Your task to perform on an android device: Open Android settings Image 0: 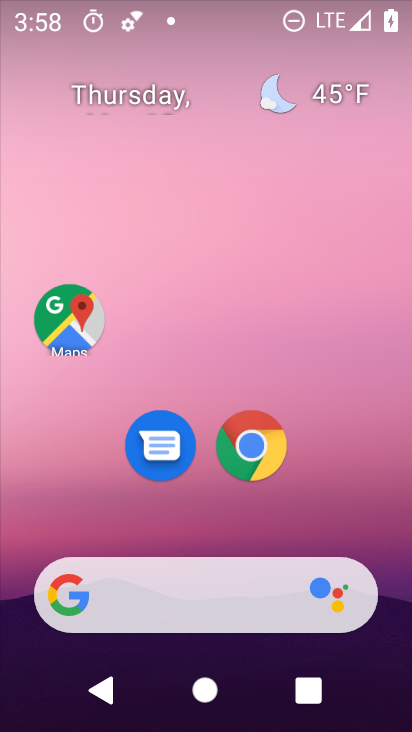
Step 0: drag from (291, 506) to (250, 187)
Your task to perform on an android device: Open Android settings Image 1: 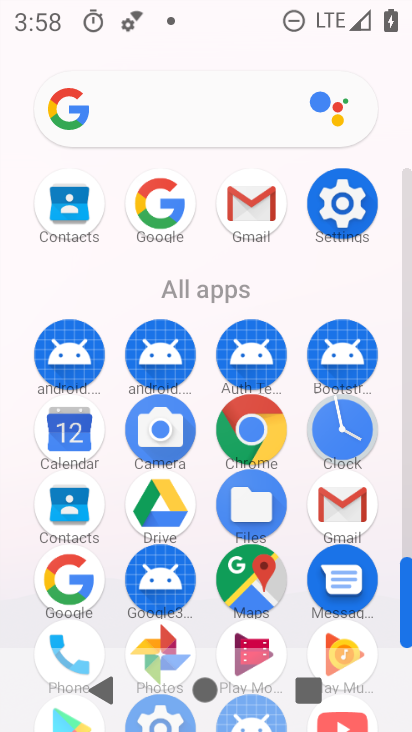
Step 1: click (345, 200)
Your task to perform on an android device: Open Android settings Image 2: 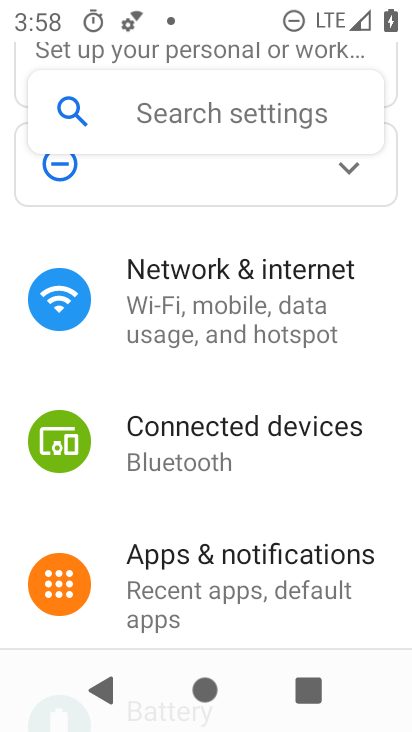
Step 2: task complete